Your task to perform on an android device: Clear all items from cart on newegg.com. Search for alienware aurora on newegg.com, select the first entry, add it to the cart, then select checkout. Image 0: 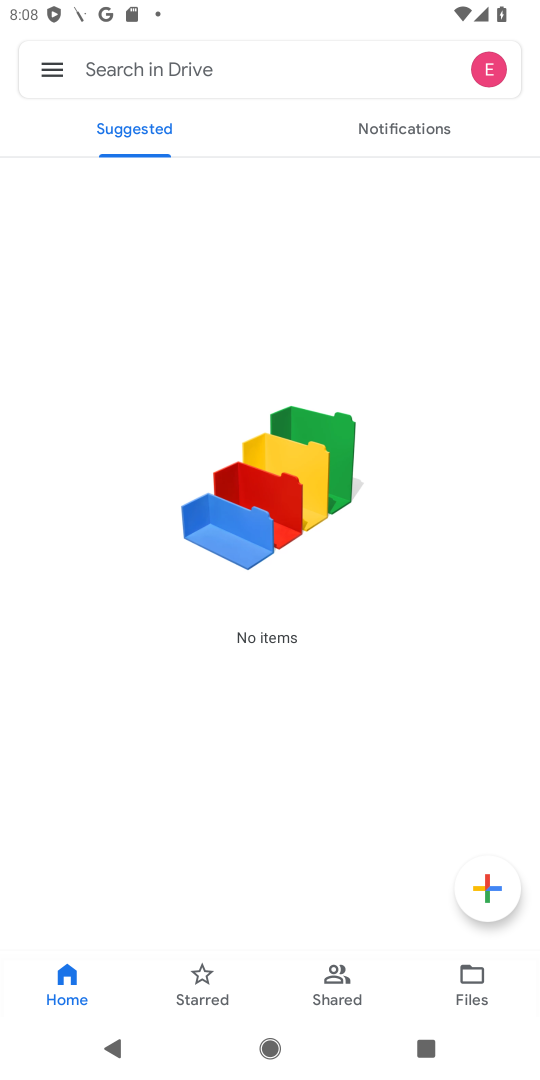
Step 0: press home button
Your task to perform on an android device: Clear all items from cart on newegg.com. Search for alienware aurora on newegg.com, select the first entry, add it to the cart, then select checkout. Image 1: 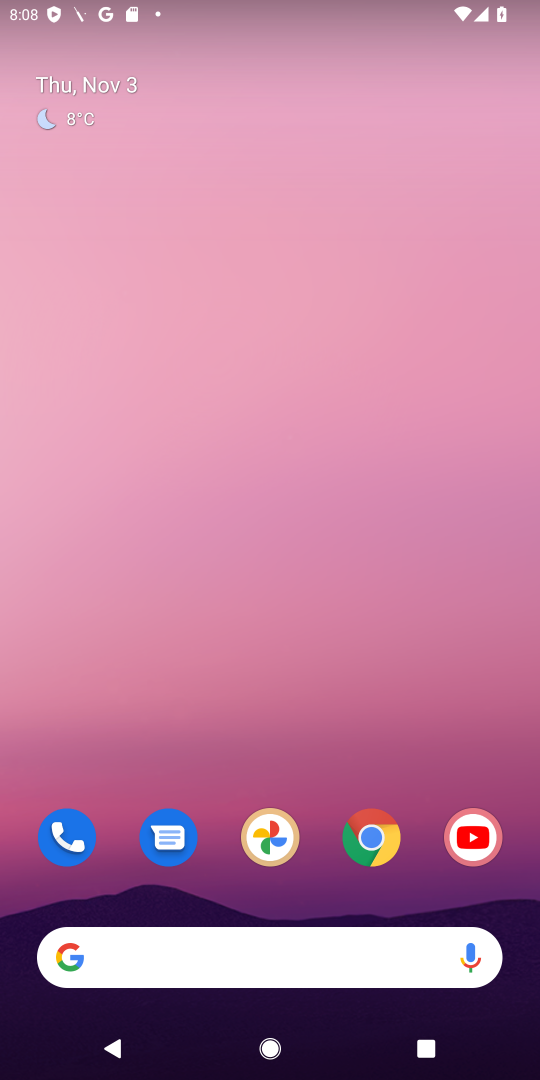
Step 1: click (367, 830)
Your task to perform on an android device: Clear all items from cart on newegg.com. Search for alienware aurora on newegg.com, select the first entry, add it to the cart, then select checkout. Image 2: 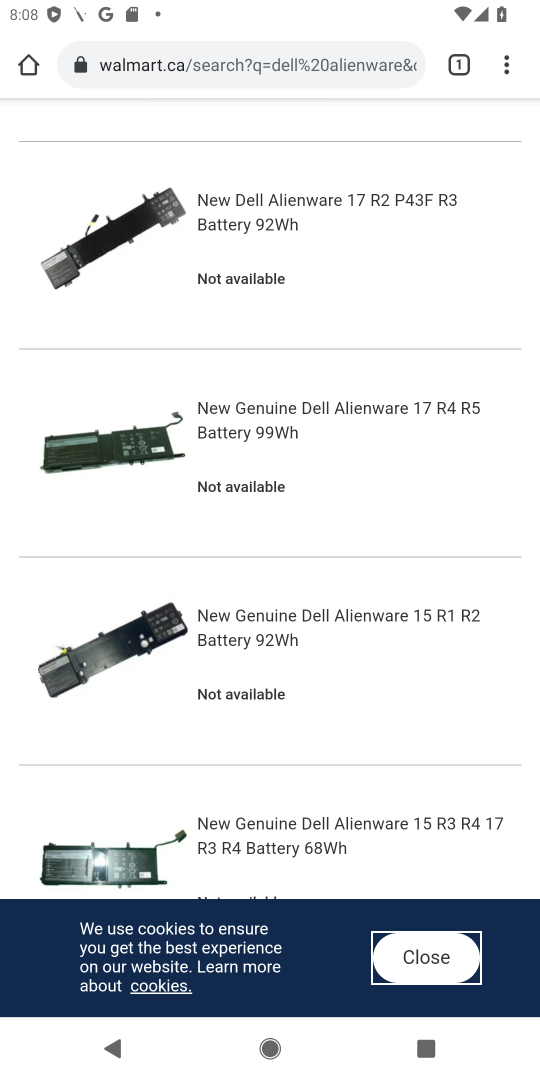
Step 2: click (296, 53)
Your task to perform on an android device: Clear all items from cart on newegg.com. Search for alienware aurora on newegg.com, select the first entry, add it to the cart, then select checkout. Image 3: 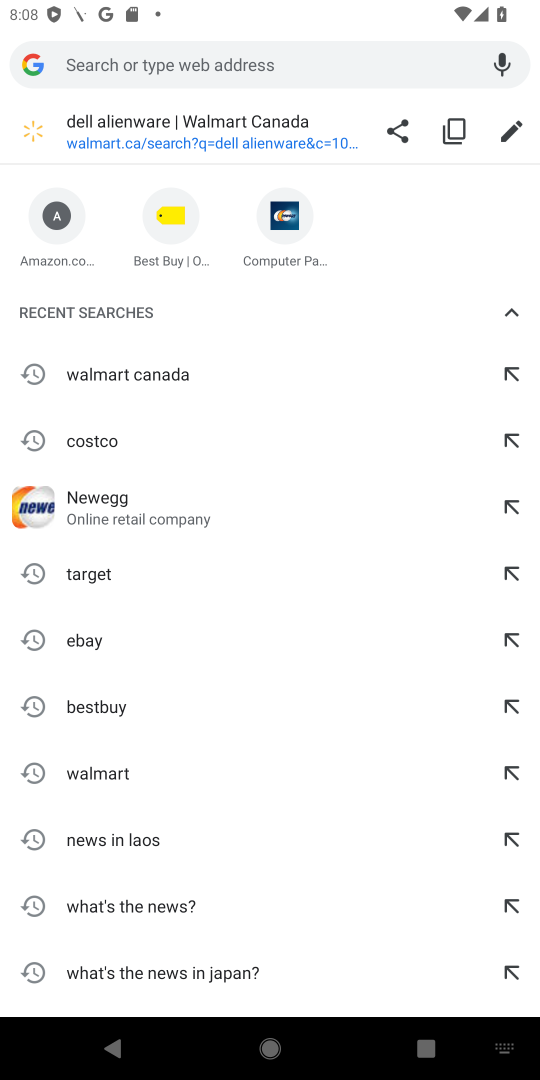
Step 3: type "newegg.com"
Your task to perform on an android device: Clear all items from cart on newegg.com. Search for alienware aurora on newegg.com, select the first entry, add it to the cart, then select checkout. Image 4: 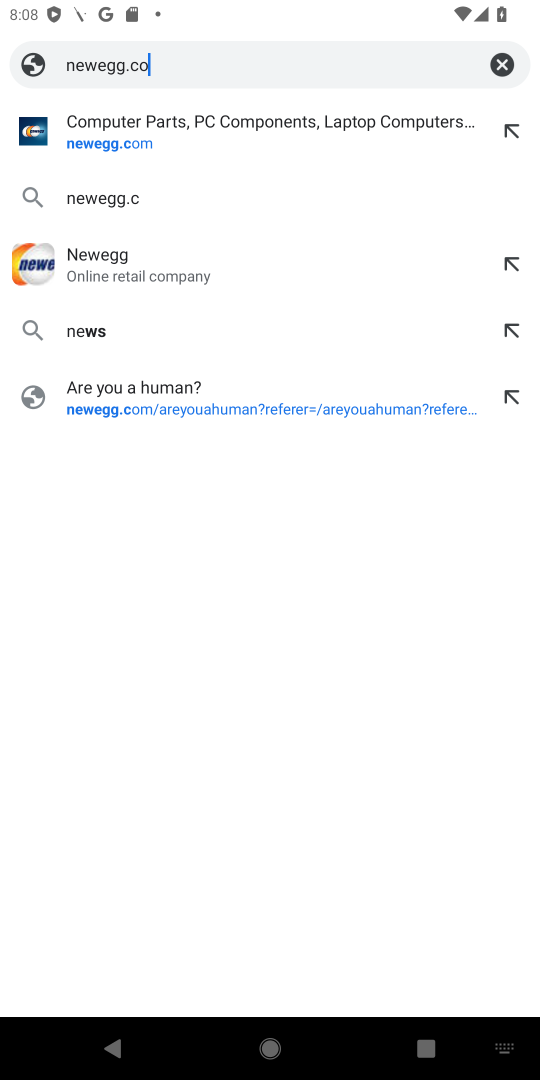
Step 4: press enter
Your task to perform on an android device: Clear all items from cart on newegg.com. Search for alienware aurora on newegg.com, select the first entry, add it to the cart, then select checkout. Image 5: 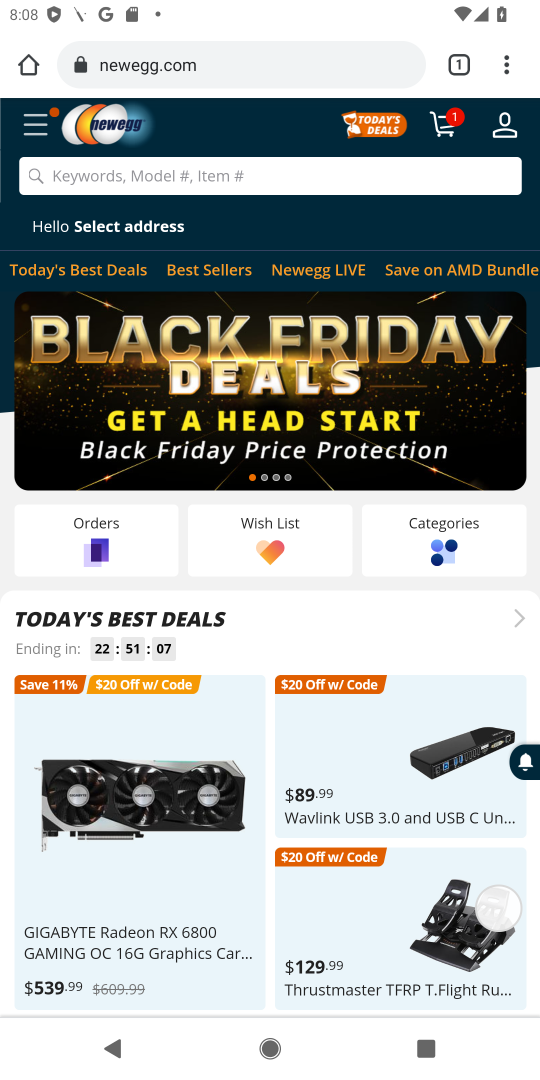
Step 5: click (281, 163)
Your task to perform on an android device: Clear all items from cart on newegg.com. Search for alienware aurora on newegg.com, select the first entry, add it to the cart, then select checkout. Image 6: 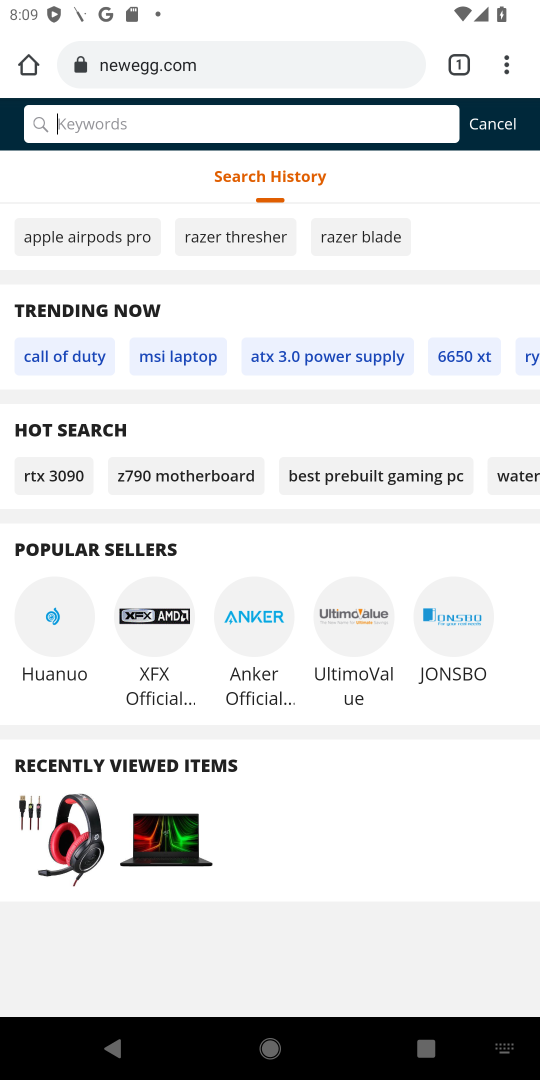
Step 6: type "alienware aurora "
Your task to perform on an android device: Clear all items from cart on newegg.com. Search for alienware aurora on newegg.com, select the first entry, add it to the cart, then select checkout. Image 7: 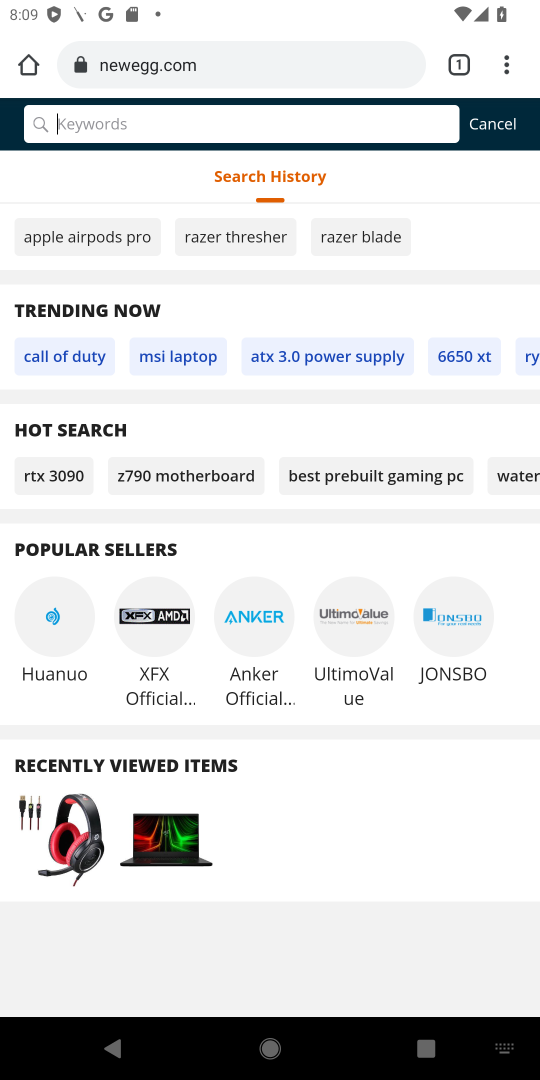
Step 7: press enter
Your task to perform on an android device: Clear all items from cart on newegg.com. Search for alienware aurora on newegg.com, select the first entry, add it to the cart, then select checkout. Image 8: 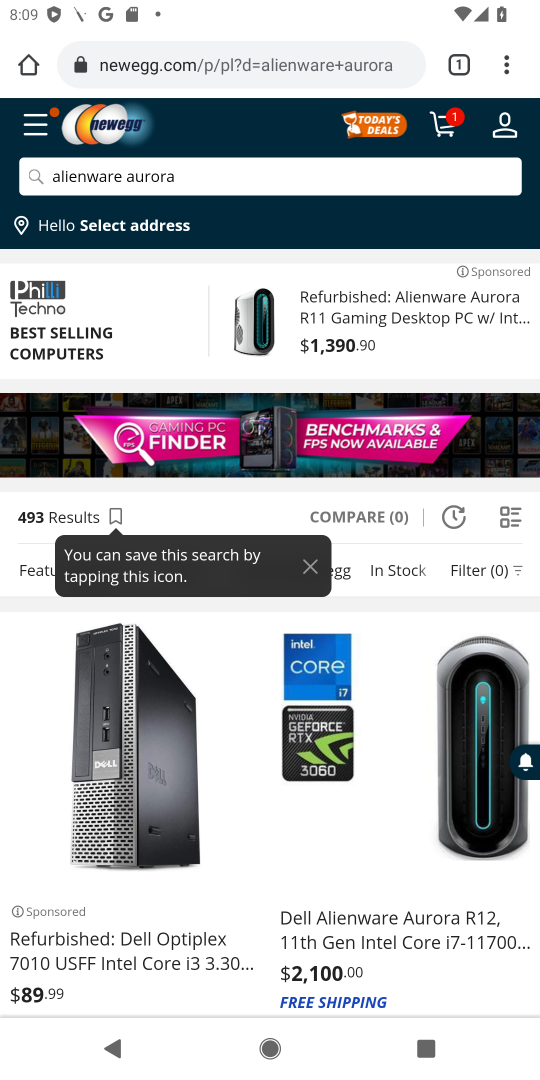
Step 8: task complete